Your task to perform on an android device: allow notifications from all sites in the chrome app Image 0: 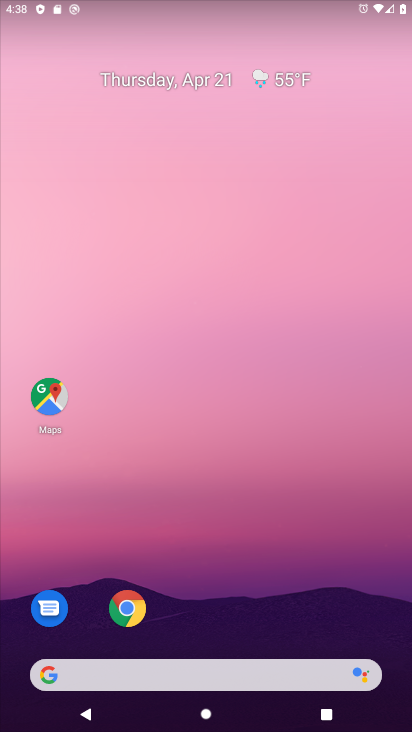
Step 0: drag from (192, 608) to (189, 181)
Your task to perform on an android device: allow notifications from all sites in the chrome app Image 1: 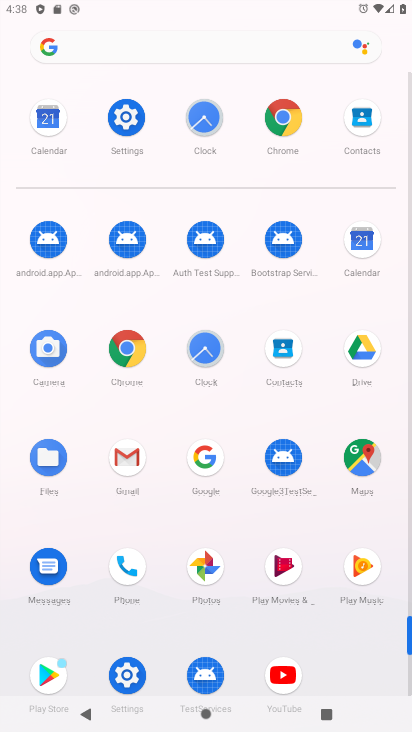
Step 1: click (278, 121)
Your task to perform on an android device: allow notifications from all sites in the chrome app Image 2: 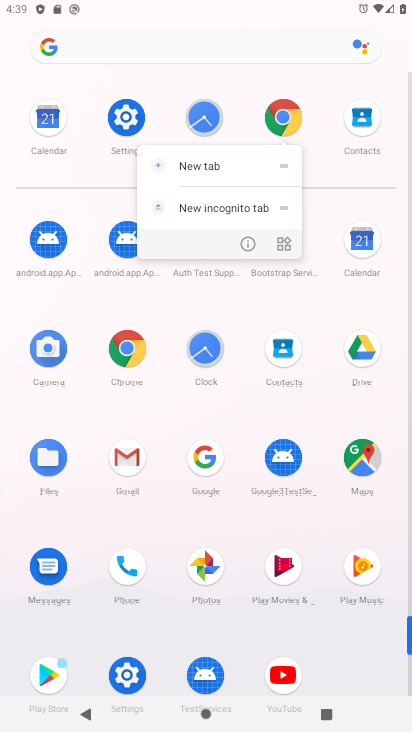
Step 2: click (291, 116)
Your task to perform on an android device: allow notifications from all sites in the chrome app Image 3: 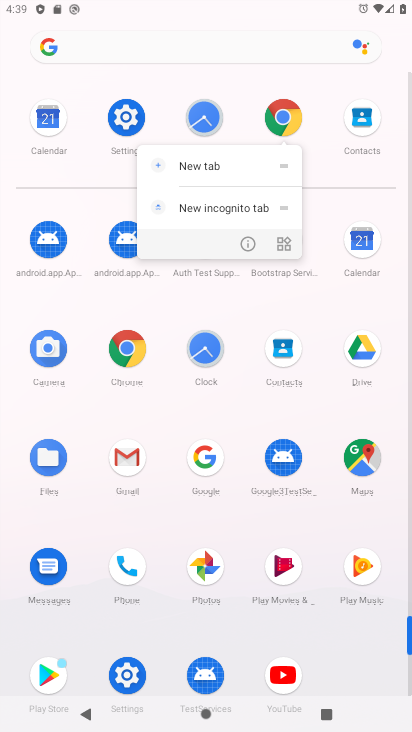
Step 3: click (291, 117)
Your task to perform on an android device: allow notifications from all sites in the chrome app Image 4: 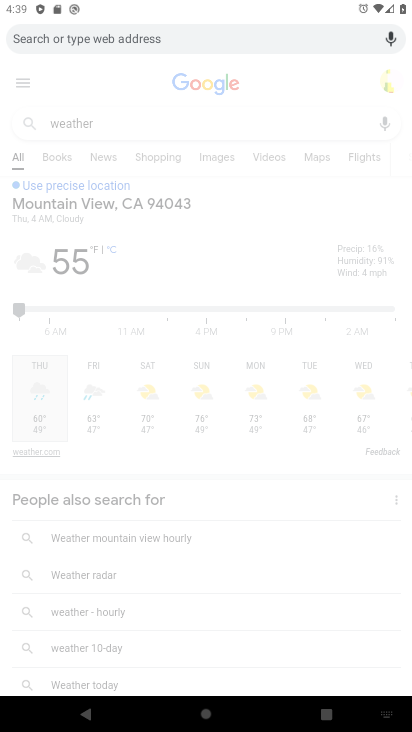
Step 4: click (88, 721)
Your task to perform on an android device: allow notifications from all sites in the chrome app Image 5: 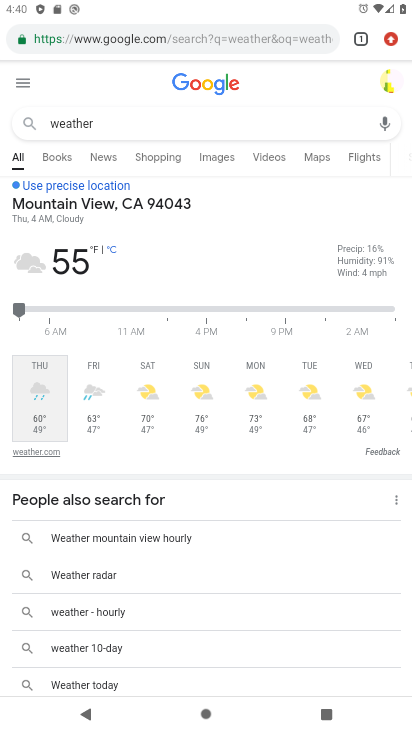
Step 5: click (89, 715)
Your task to perform on an android device: allow notifications from all sites in the chrome app Image 6: 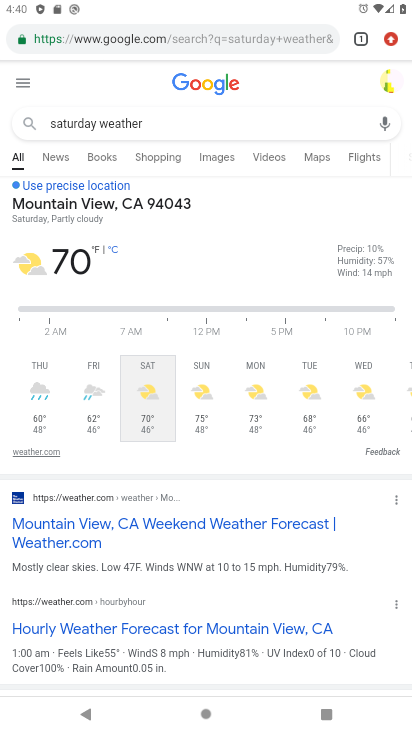
Step 6: click (17, 80)
Your task to perform on an android device: allow notifications from all sites in the chrome app Image 7: 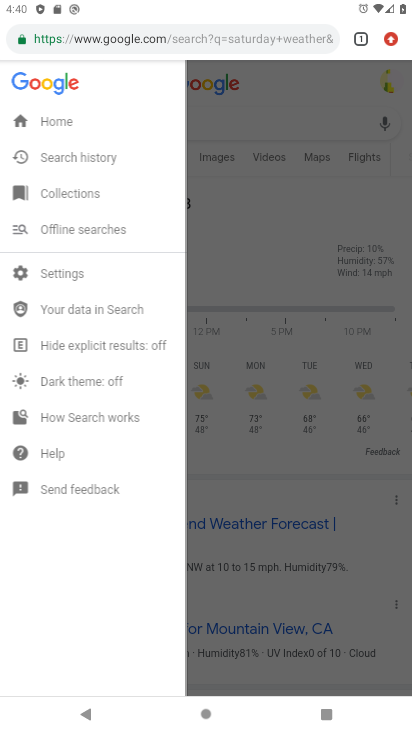
Step 7: click (60, 278)
Your task to perform on an android device: allow notifications from all sites in the chrome app Image 8: 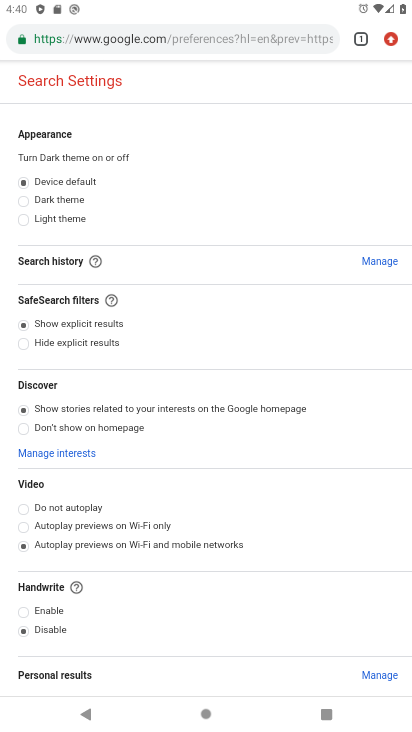
Step 8: task complete